Your task to perform on an android device: Add "logitech g933" to the cart on bestbuy.com Image 0: 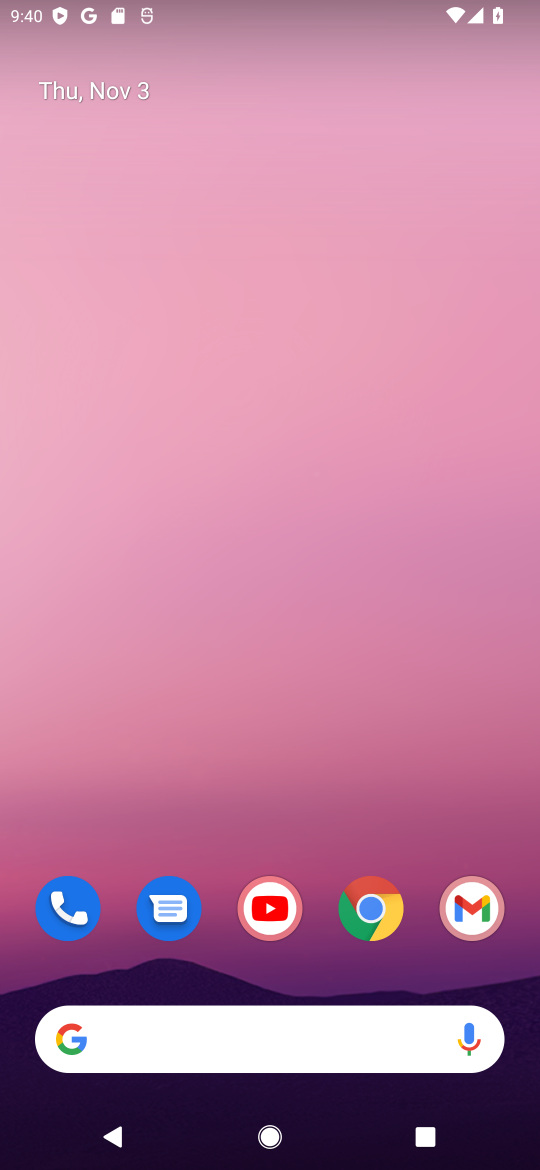
Step 0: click (386, 898)
Your task to perform on an android device: Add "logitech g933" to the cart on bestbuy.com Image 1: 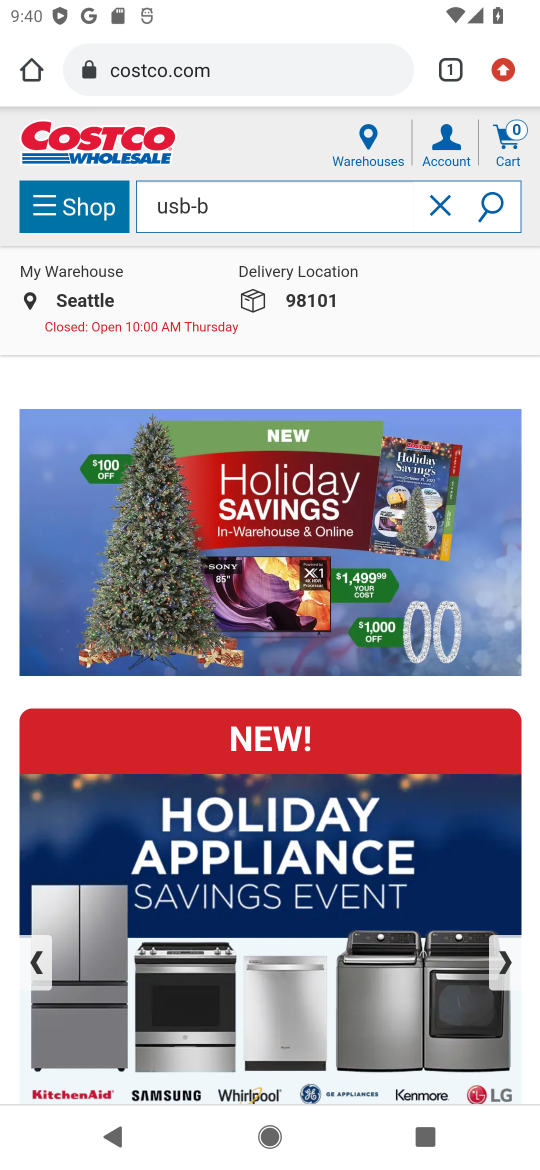
Step 1: click (294, 65)
Your task to perform on an android device: Add "logitech g933" to the cart on bestbuy.com Image 2: 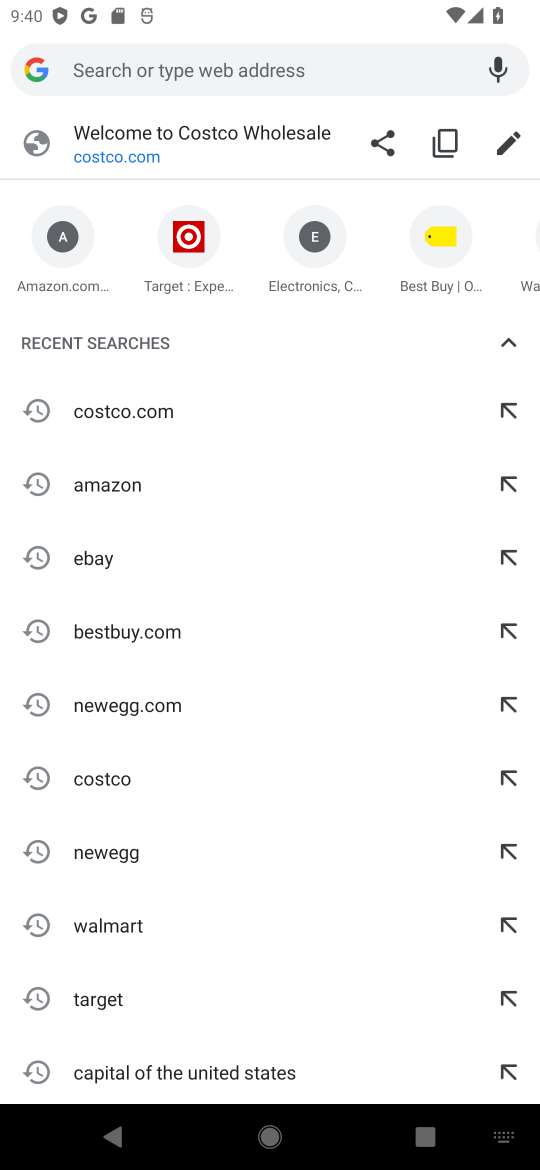
Step 2: click (169, 634)
Your task to perform on an android device: Add "logitech g933" to the cart on bestbuy.com Image 3: 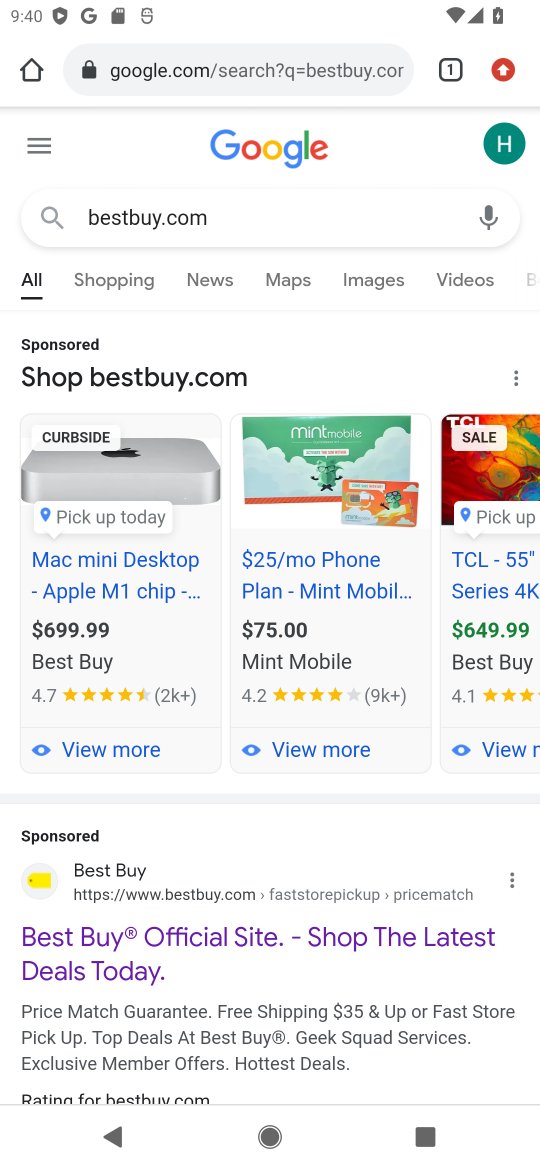
Step 3: click (124, 892)
Your task to perform on an android device: Add "logitech g933" to the cart on bestbuy.com Image 4: 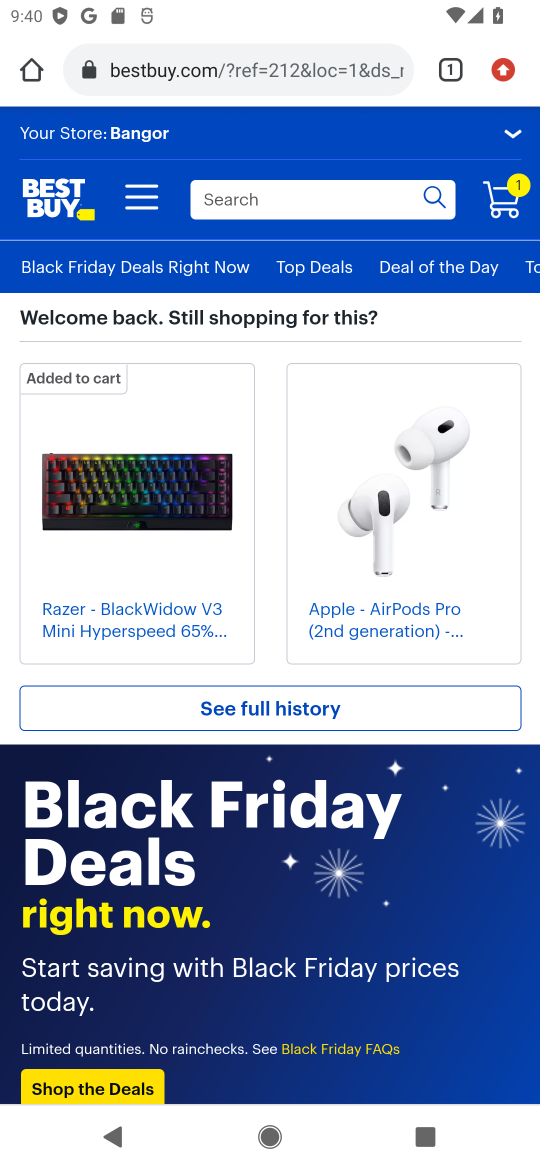
Step 4: click (266, 192)
Your task to perform on an android device: Add "logitech g933" to the cart on bestbuy.com Image 5: 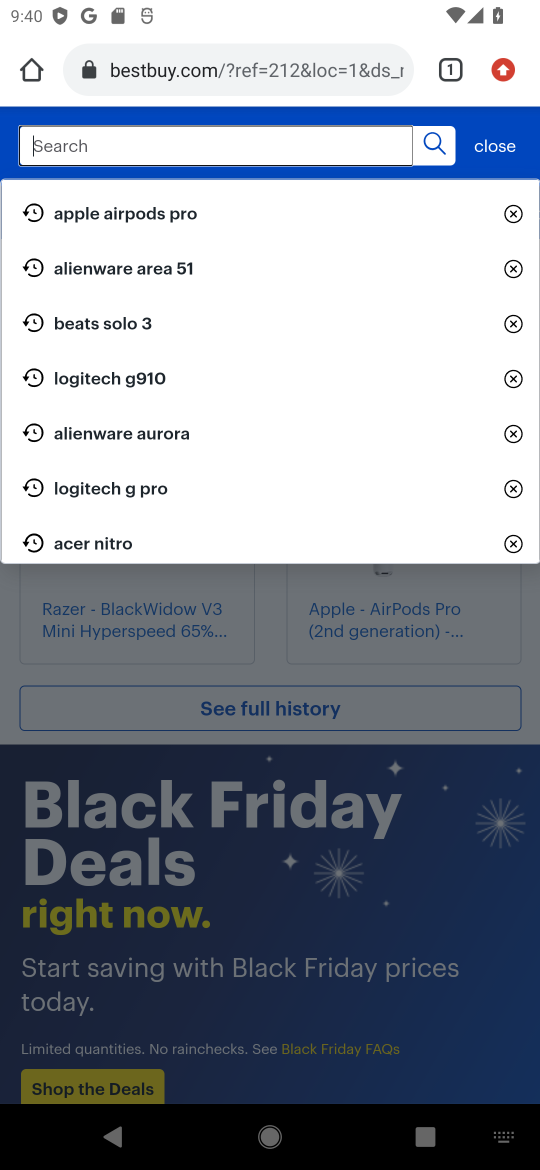
Step 5: type "logitech g933"
Your task to perform on an android device: Add "logitech g933" to the cart on bestbuy.com Image 6: 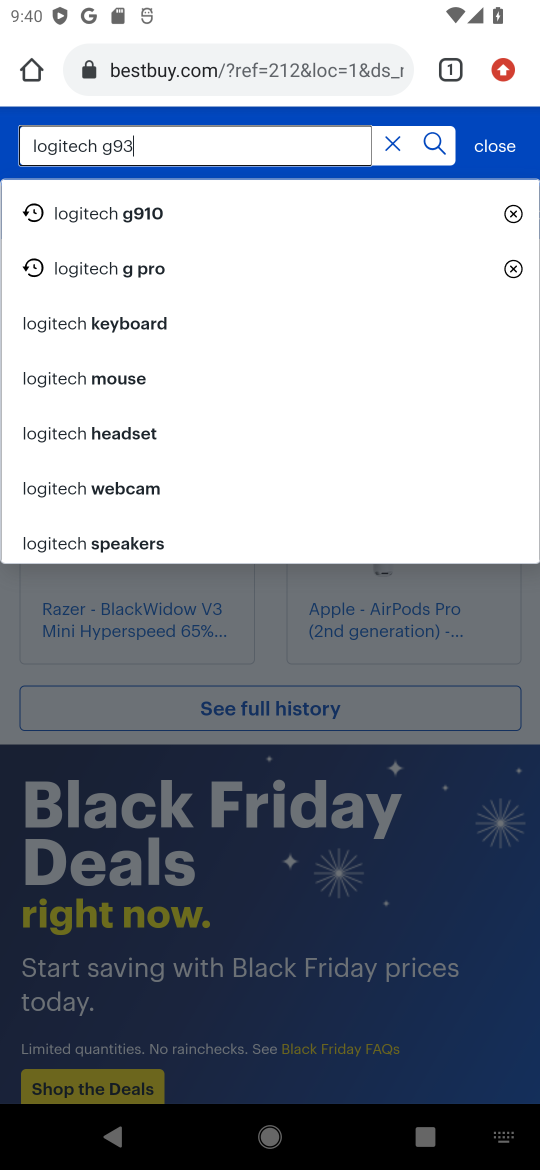
Step 6: press enter
Your task to perform on an android device: Add "logitech g933" to the cart on bestbuy.com Image 7: 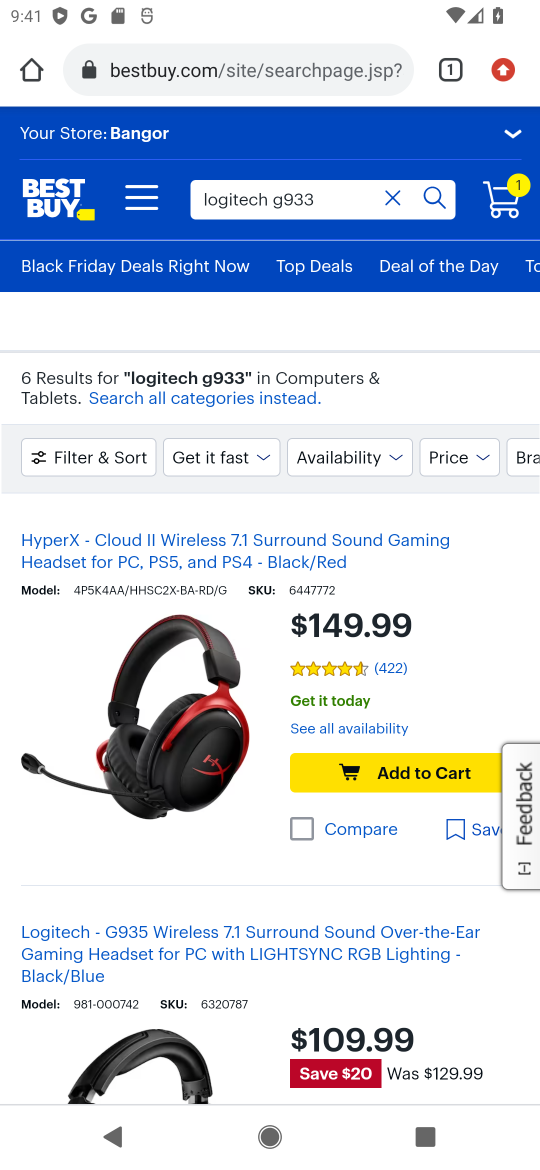
Step 7: drag from (312, 861) to (315, 519)
Your task to perform on an android device: Add "logitech g933" to the cart on bestbuy.com Image 8: 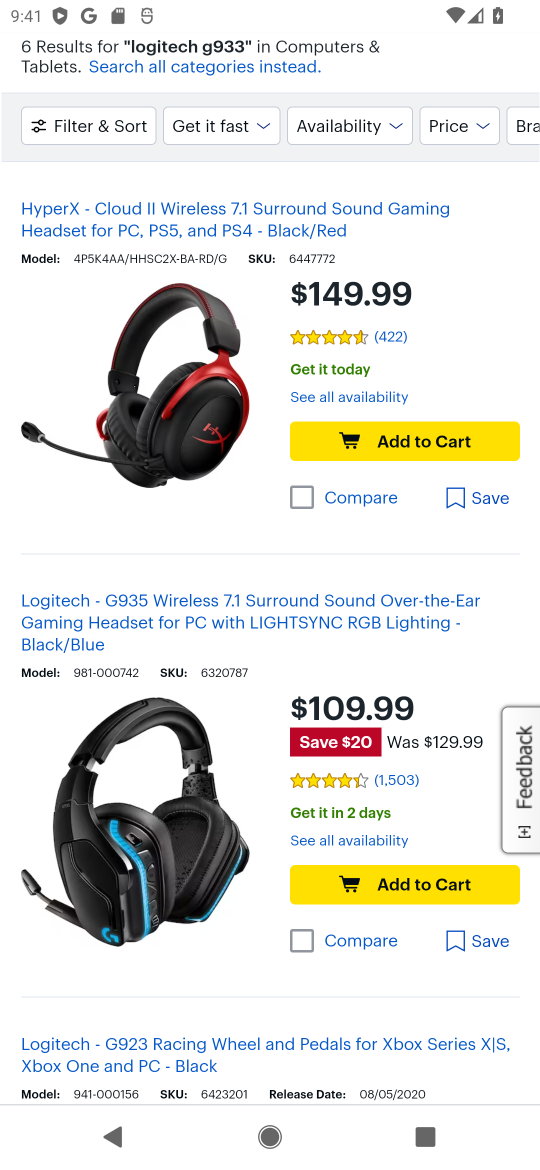
Step 8: drag from (437, 984) to (479, 704)
Your task to perform on an android device: Add "logitech g933" to the cart on bestbuy.com Image 9: 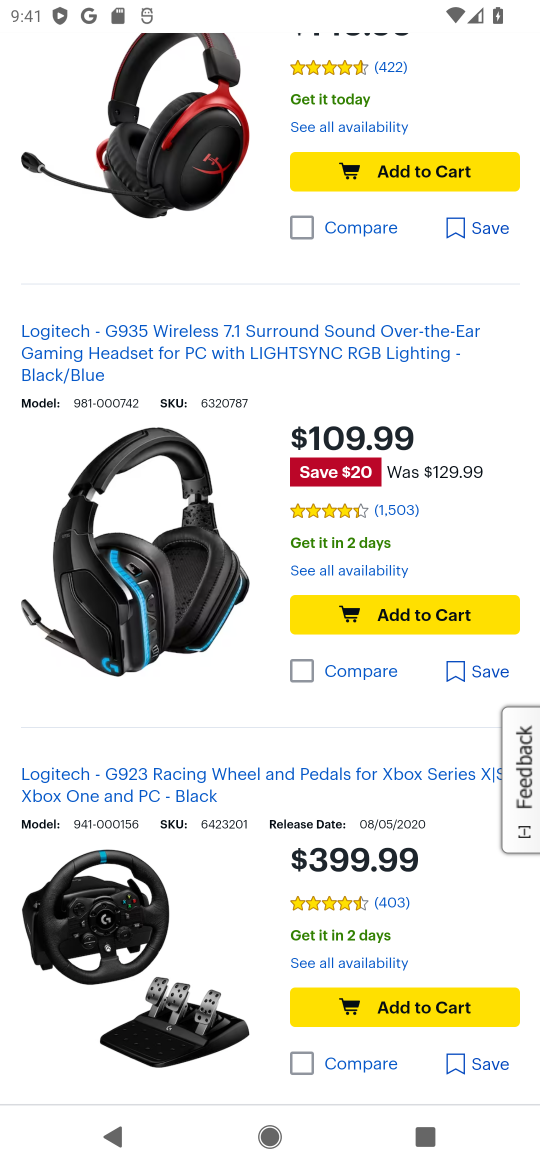
Step 9: drag from (416, 882) to (452, 588)
Your task to perform on an android device: Add "logitech g933" to the cart on bestbuy.com Image 10: 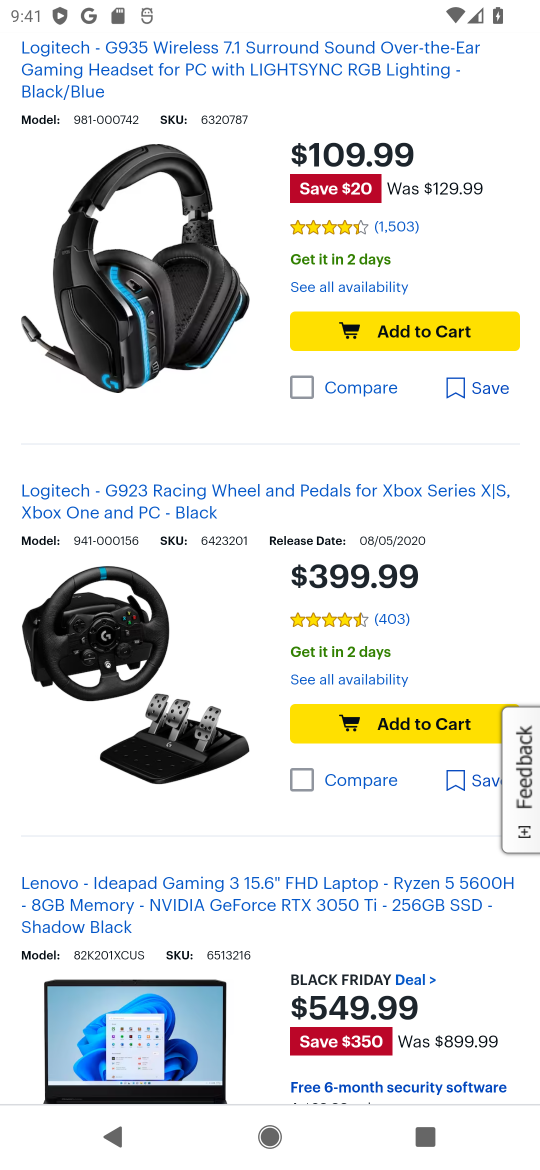
Step 10: drag from (384, 898) to (432, 425)
Your task to perform on an android device: Add "logitech g933" to the cart on bestbuy.com Image 11: 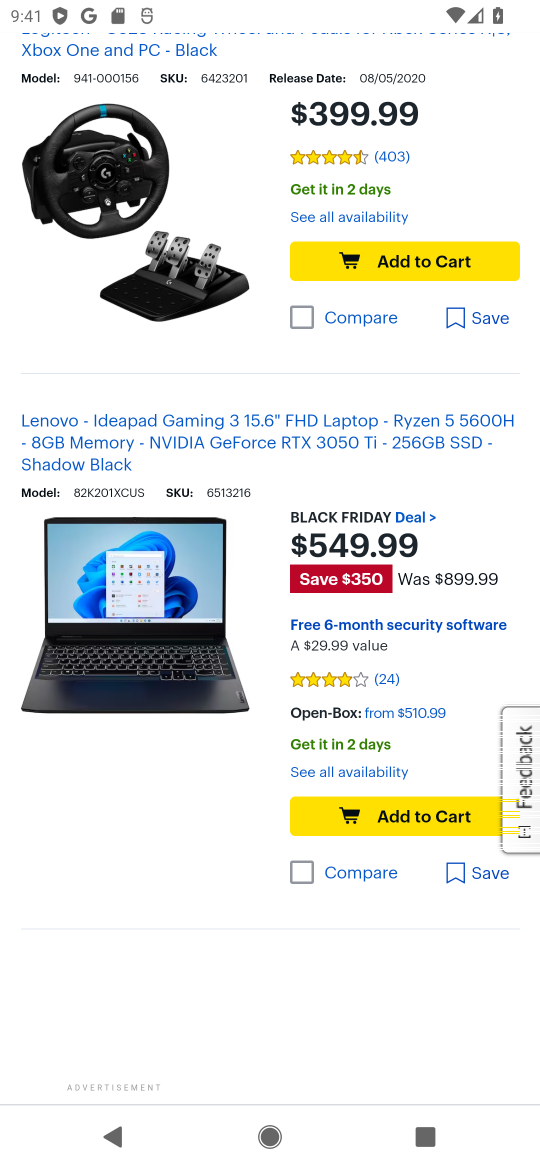
Step 11: drag from (221, 857) to (292, 407)
Your task to perform on an android device: Add "logitech g933" to the cart on bestbuy.com Image 12: 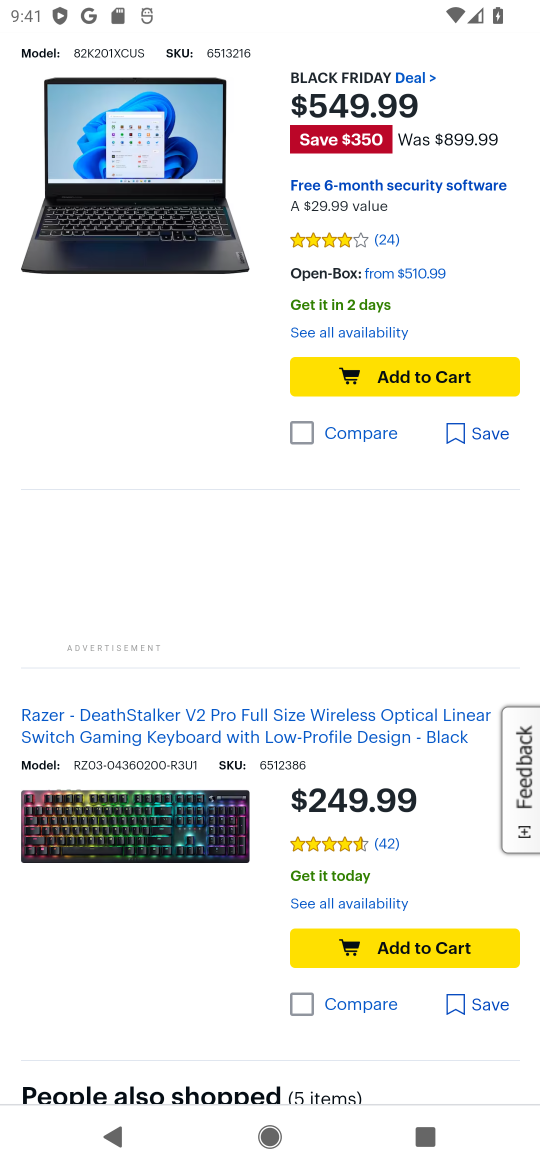
Step 12: drag from (264, 777) to (311, 298)
Your task to perform on an android device: Add "logitech g933" to the cart on bestbuy.com Image 13: 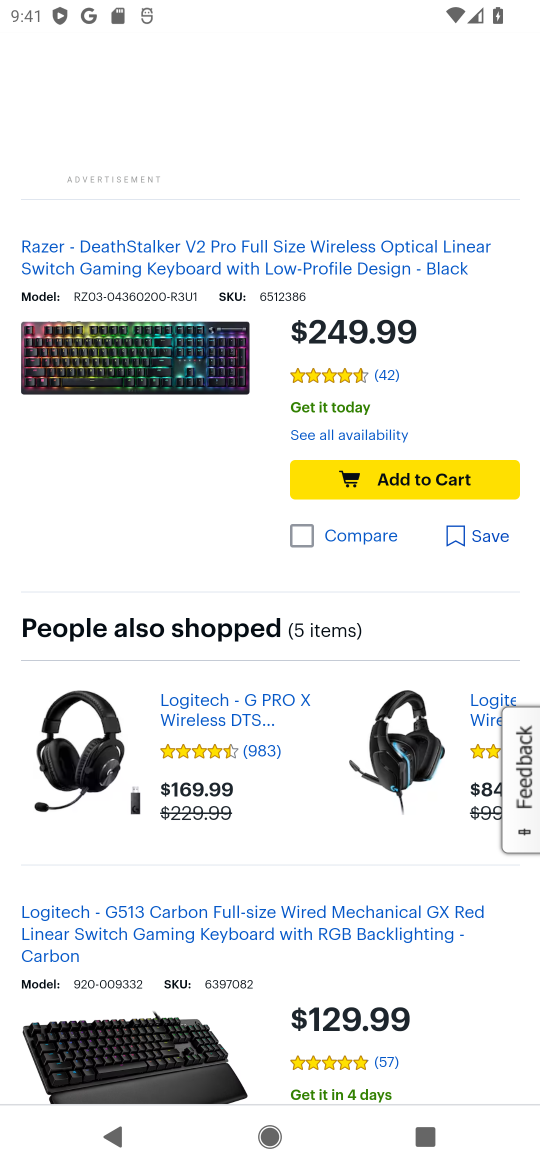
Step 13: drag from (258, 782) to (357, 305)
Your task to perform on an android device: Add "logitech g933" to the cart on bestbuy.com Image 14: 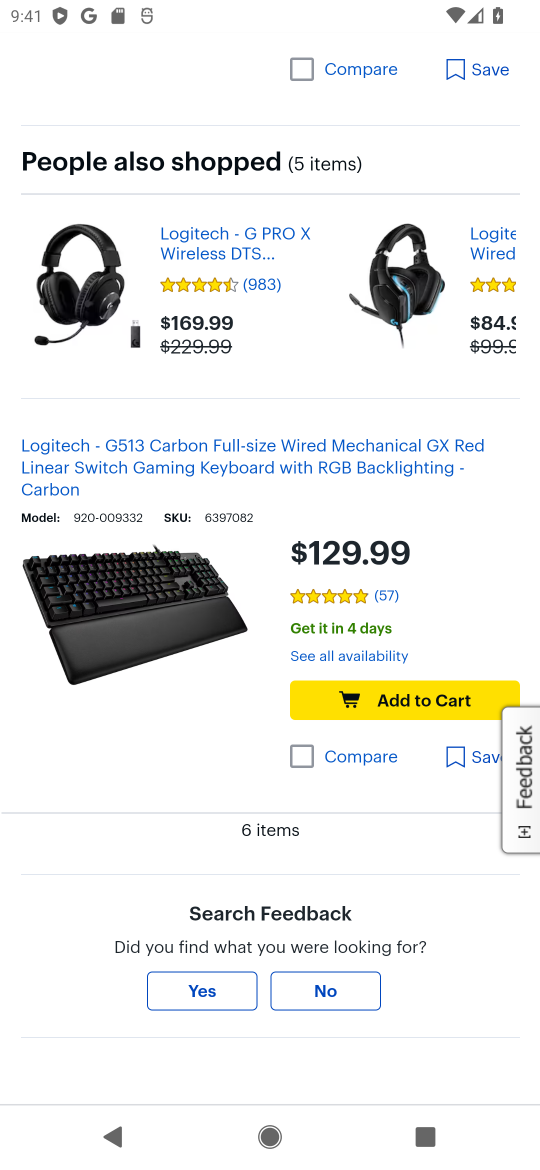
Step 14: drag from (331, 807) to (419, 309)
Your task to perform on an android device: Add "logitech g933" to the cart on bestbuy.com Image 15: 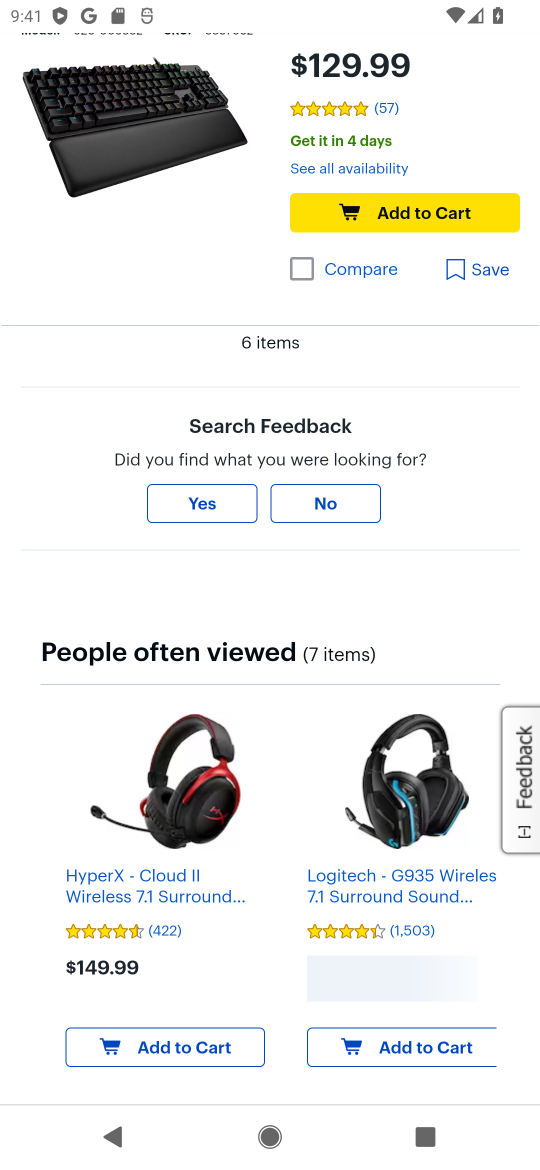
Step 15: drag from (269, 790) to (452, 116)
Your task to perform on an android device: Add "logitech g933" to the cart on bestbuy.com Image 16: 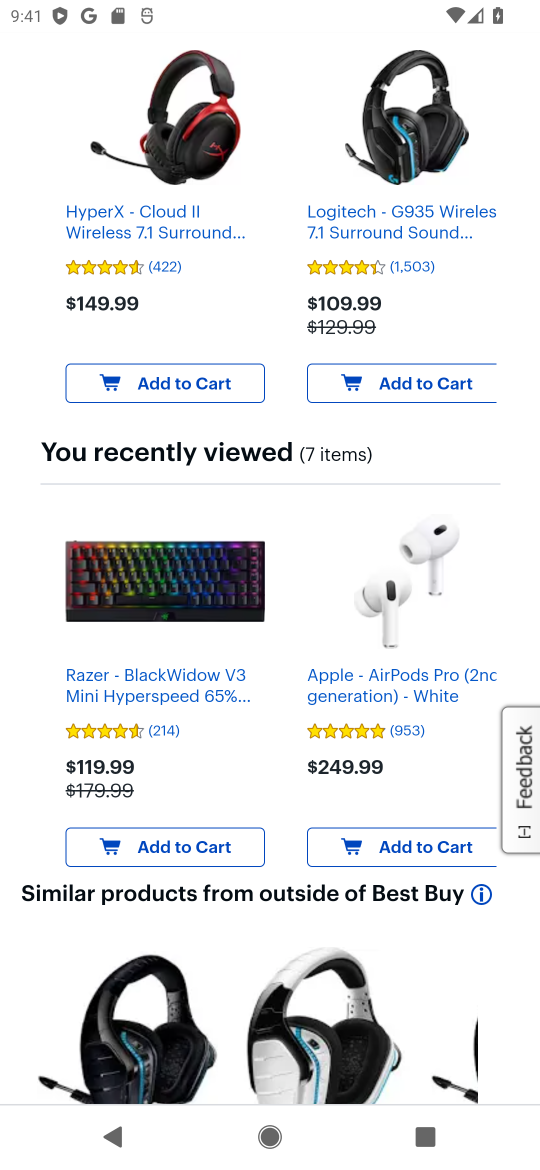
Step 16: drag from (234, 740) to (406, 253)
Your task to perform on an android device: Add "logitech g933" to the cart on bestbuy.com Image 17: 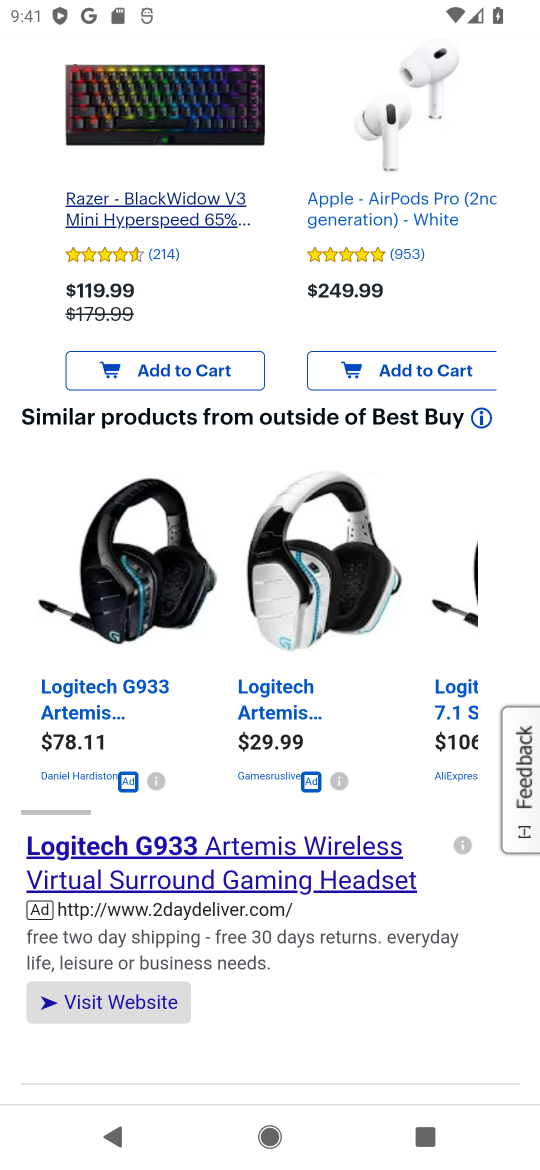
Step 17: click (125, 568)
Your task to perform on an android device: Add "logitech g933" to the cart on bestbuy.com Image 18: 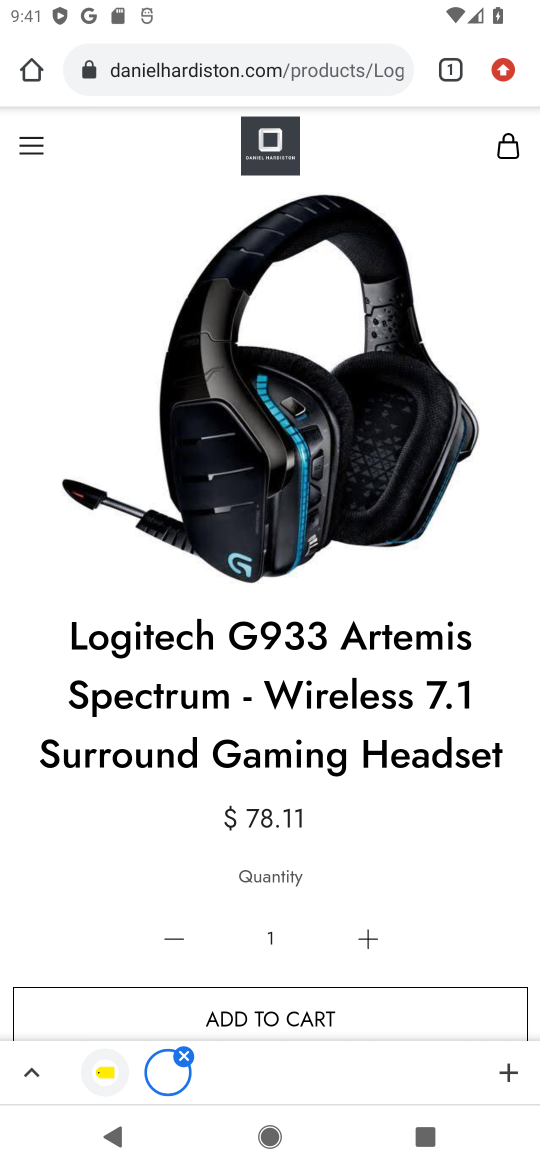
Step 18: drag from (393, 700) to (438, 239)
Your task to perform on an android device: Add "logitech g933" to the cart on bestbuy.com Image 19: 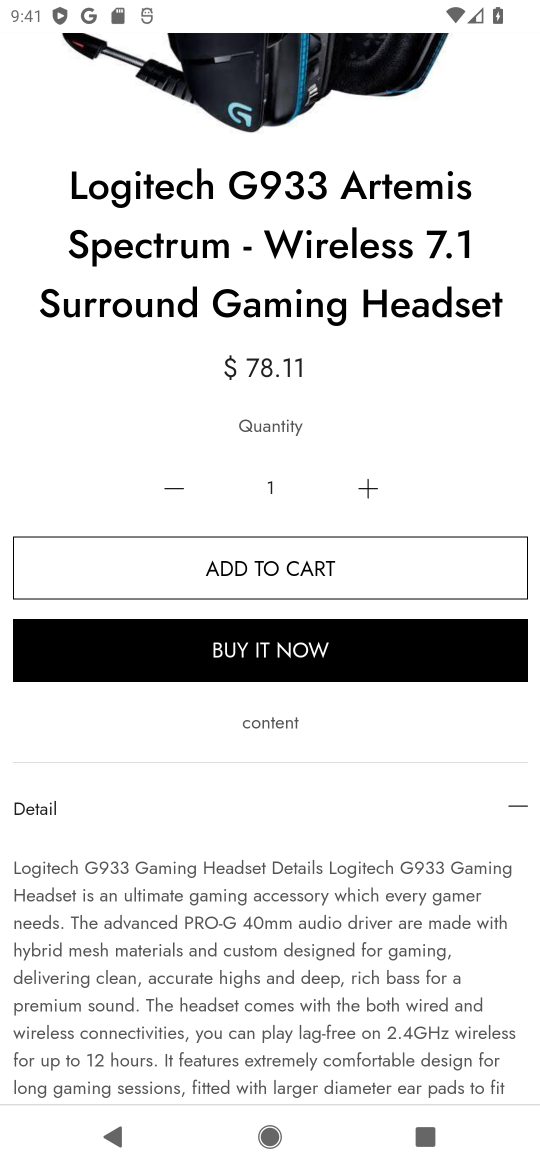
Step 19: click (300, 560)
Your task to perform on an android device: Add "logitech g933" to the cart on bestbuy.com Image 20: 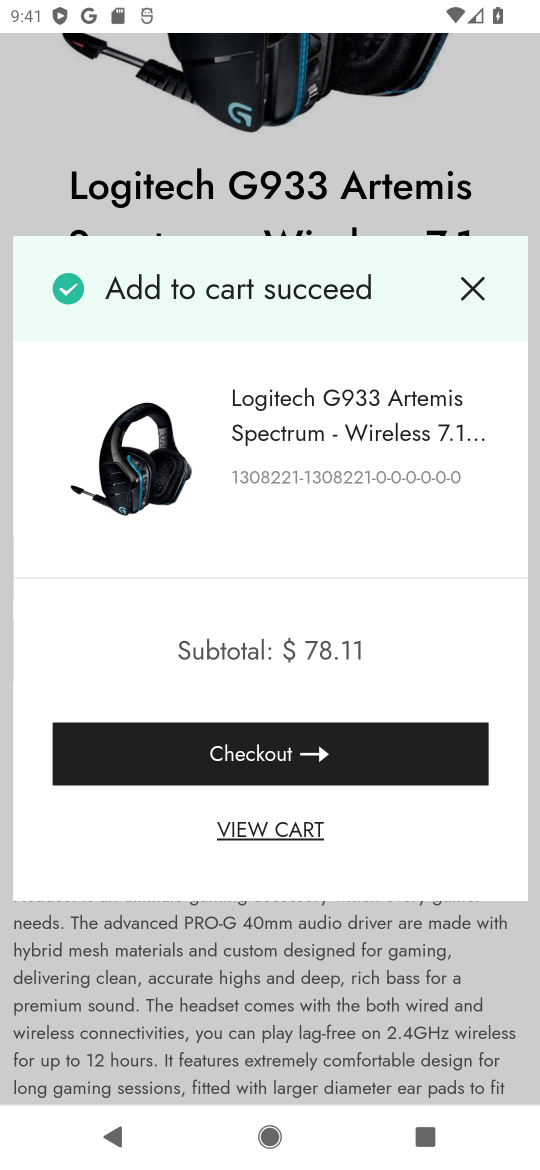
Step 20: task complete